Your task to perform on an android device: manage bookmarks in the chrome app Image 0: 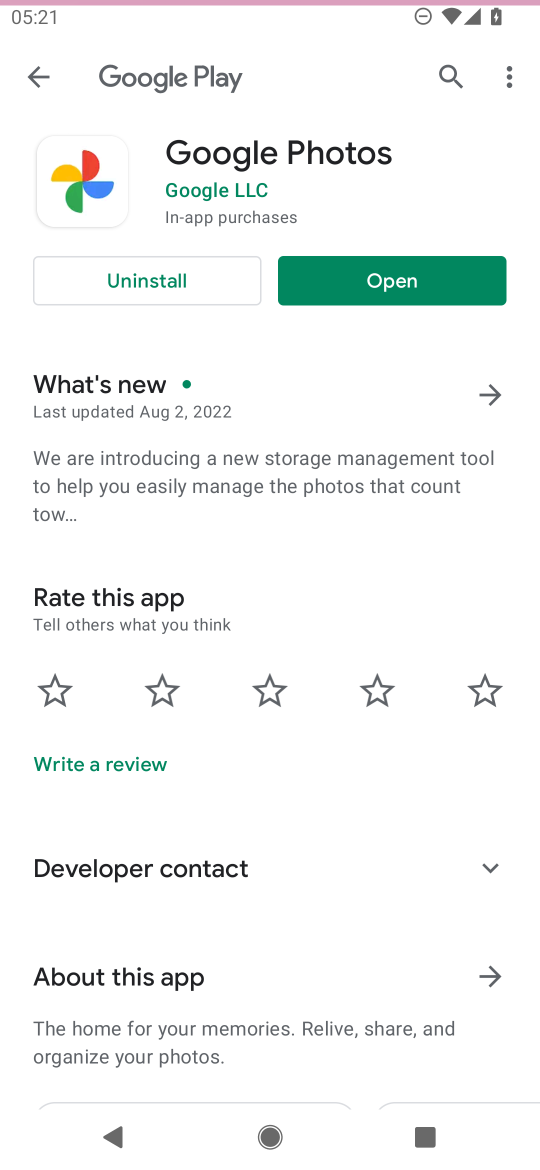
Step 0: press home button
Your task to perform on an android device: manage bookmarks in the chrome app Image 1: 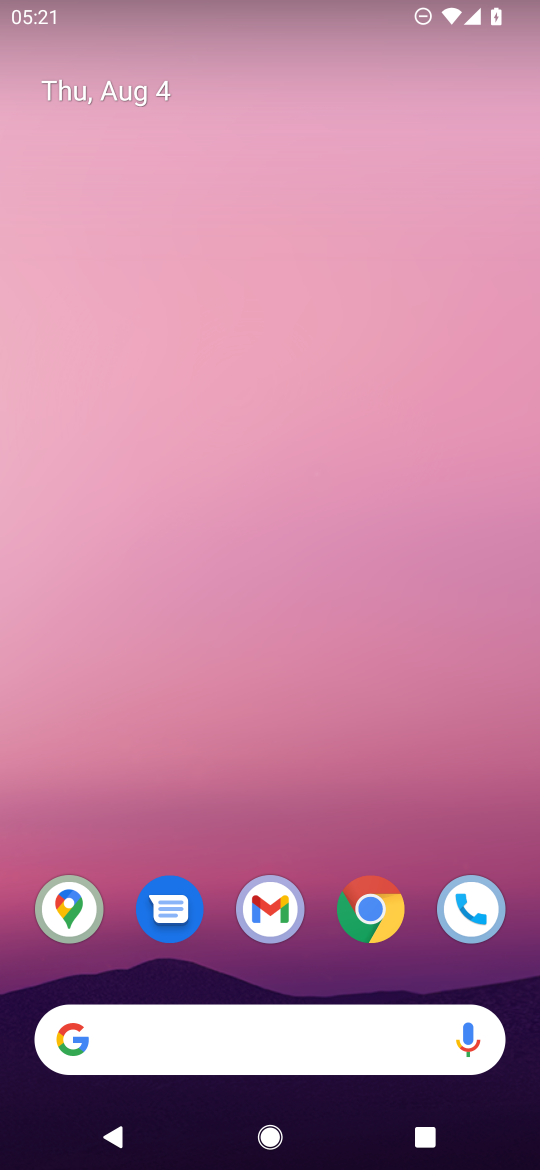
Step 1: click (375, 916)
Your task to perform on an android device: manage bookmarks in the chrome app Image 2: 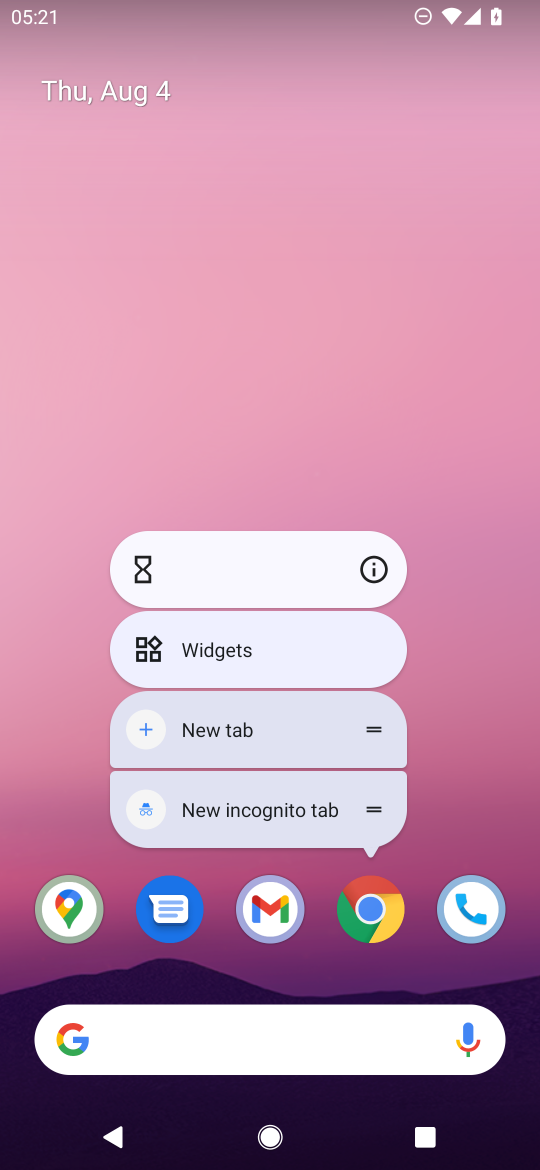
Step 2: click (379, 903)
Your task to perform on an android device: manage bookmarks in the chrome app Image 3: 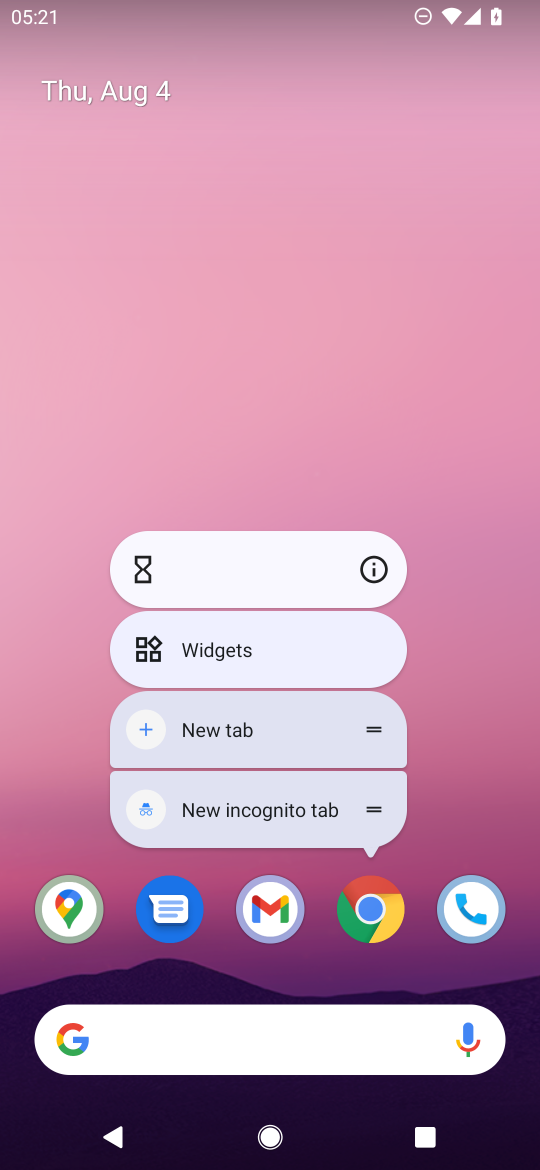
Step 3: click (379, 903)
Your task to perform on an android device: manage bookmarks in the chrome app Image 4: 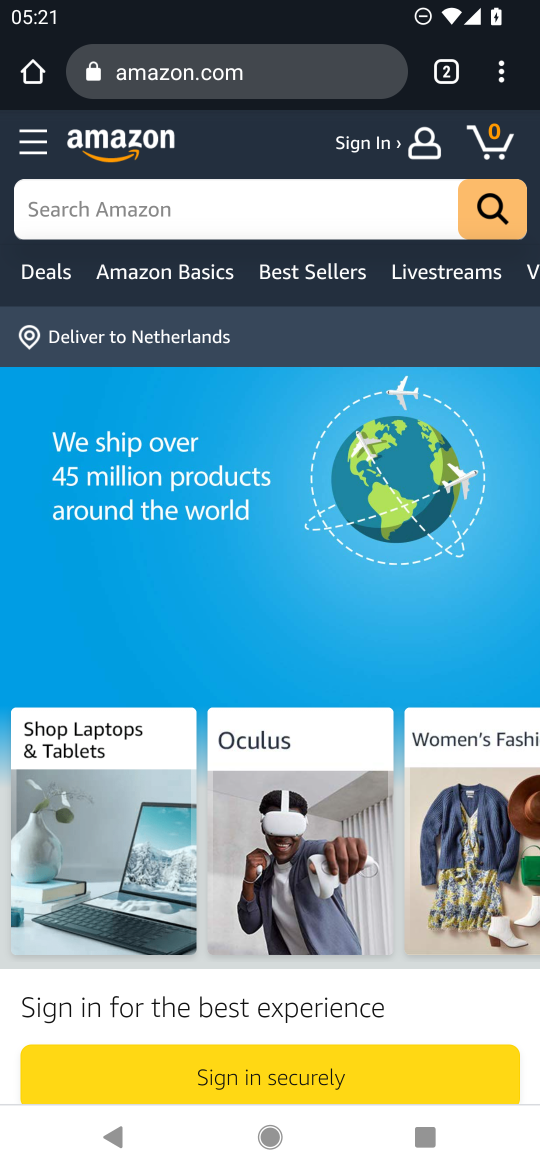
Step 4: drag from (502, 70) to (327, 502)
Your task to perform on an android device: manage bookmarks in the chrome app Image 5: 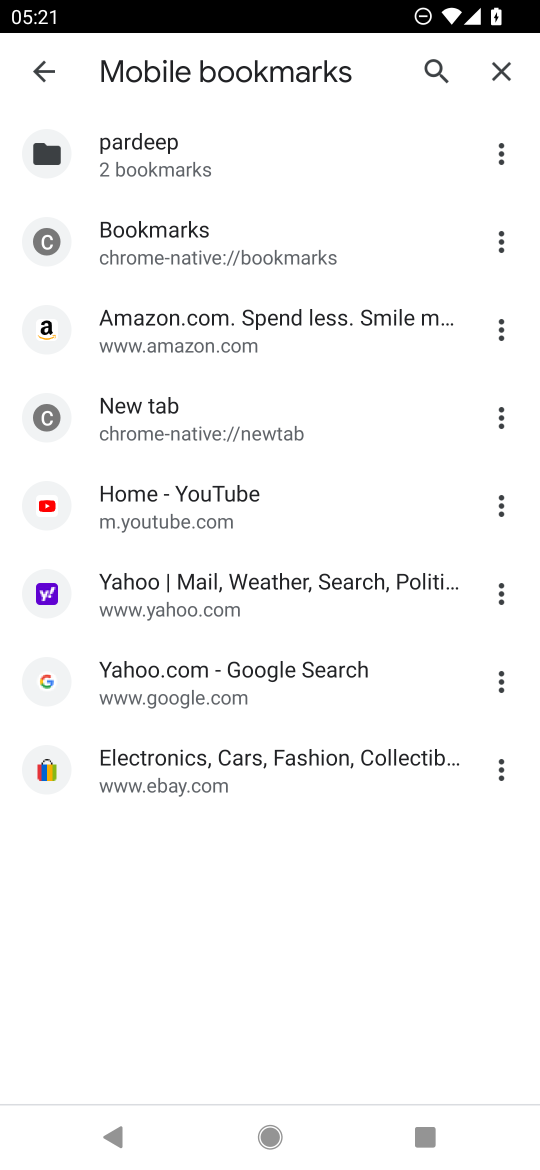
Step 5: click (506, 233)
Your task to perform on an android device: manage bookmarks in the chrome app Image 6: 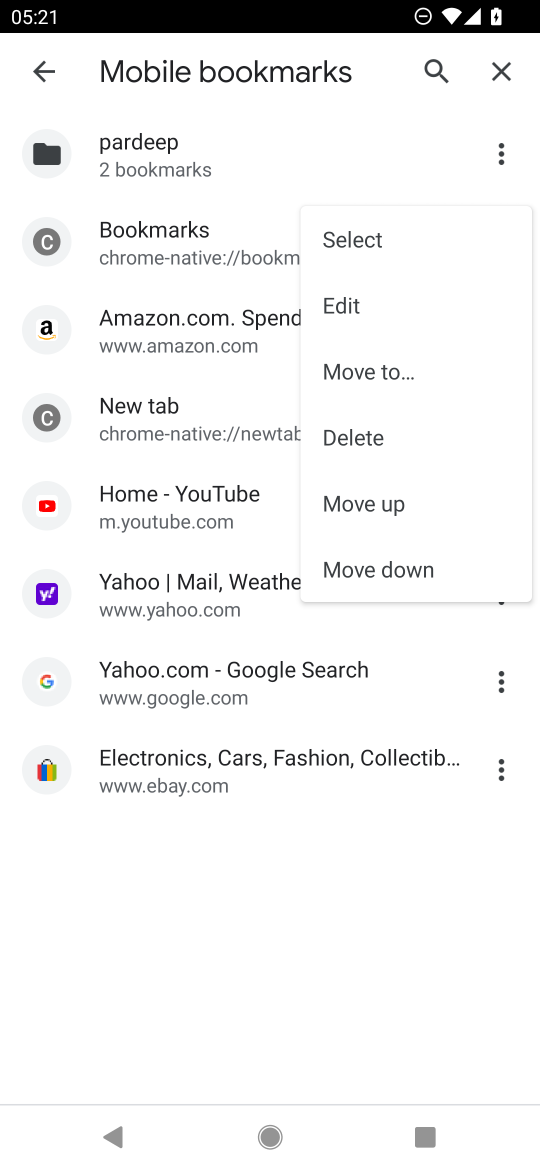
Step 6: click (330, 304)
Your task to perform on an android device: manage bookmarks in the chrome app Image 7: 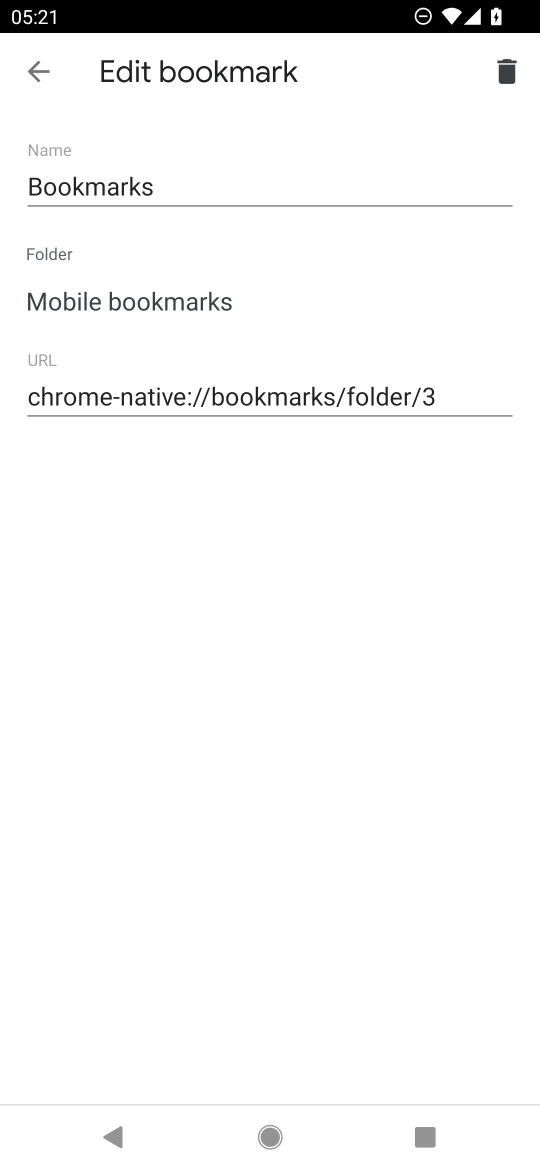
Step 7: task complete